Your task to perform on an android device: turn off translation in the chrome app Image 0: 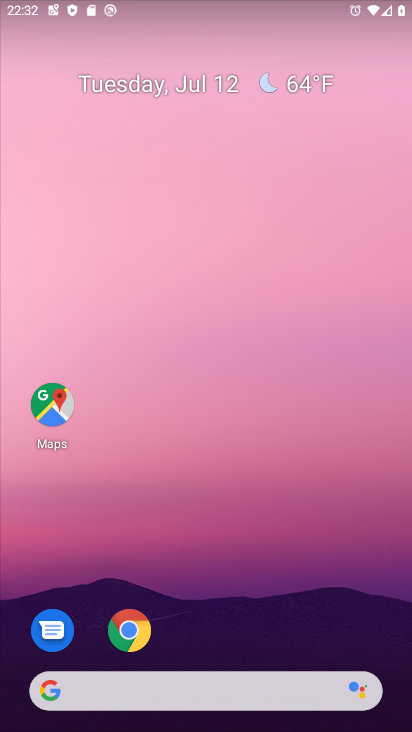
Step 0: drag from (221, 661) to (225, 47)
Your task to perform on an android device: turn off translation in the chrome app Image 1: 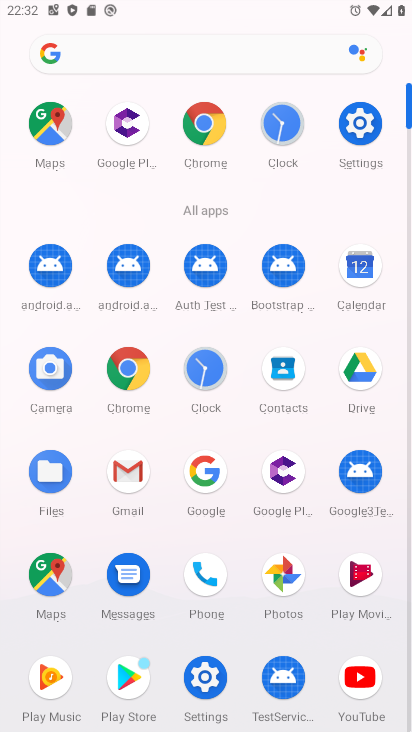
Step 1: click (125, 364)
Your task to perform on an android device: turn off translation in the chrome app Image 2: 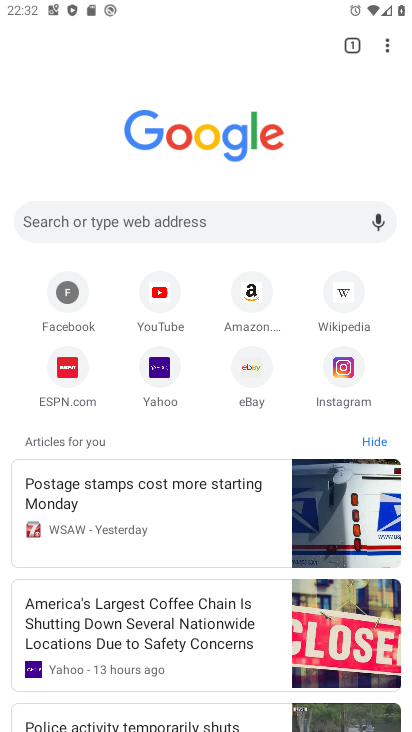
Step 2: click (389, 40)
Your task to perform on an android device: turn off translation in the chrome app Image 3: 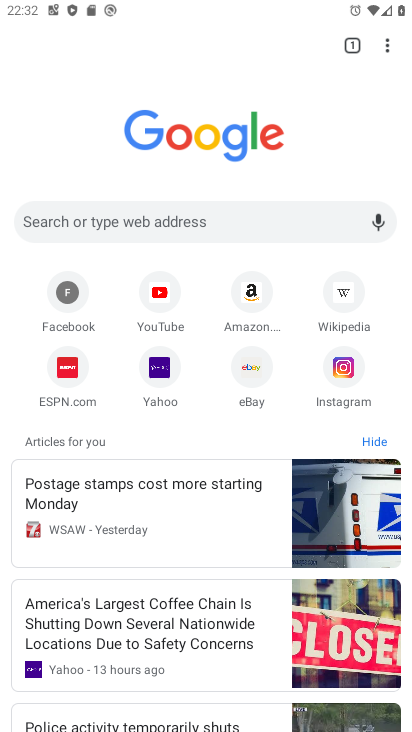
Step 3: drag from (386, 41) to (214, 377)
Your task to perform on an android device: turn off translation in the chrome app Image 4: 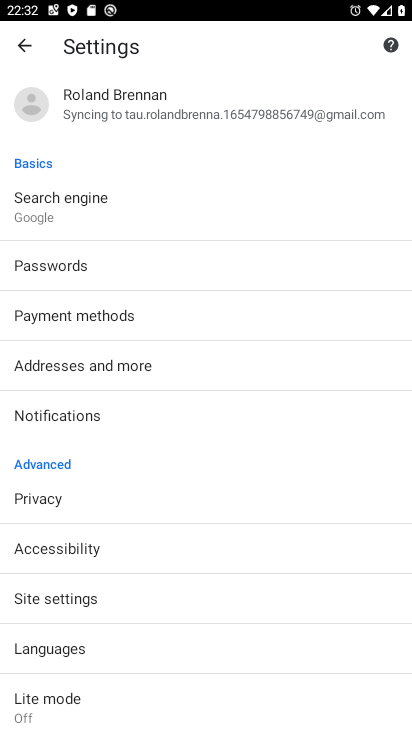
Step 4: drag from (159, 602) to (142, 176)
Your task to perform on an android device: turn off translation in the chrome app Image 5: 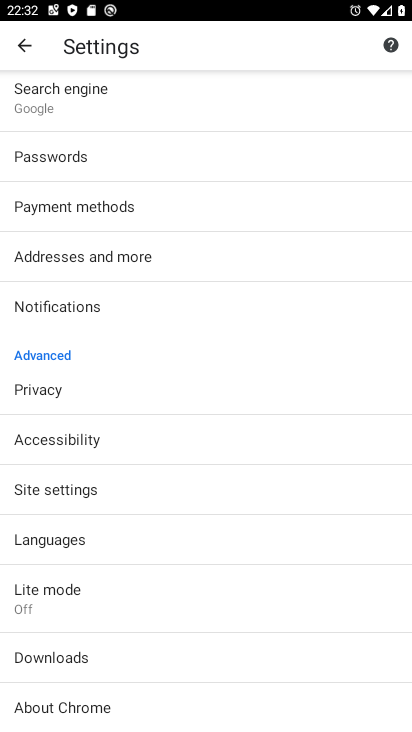
Step 5: click (108, 532)
Your task to perform on an android device: turn off translation in the chrome app Image 6: 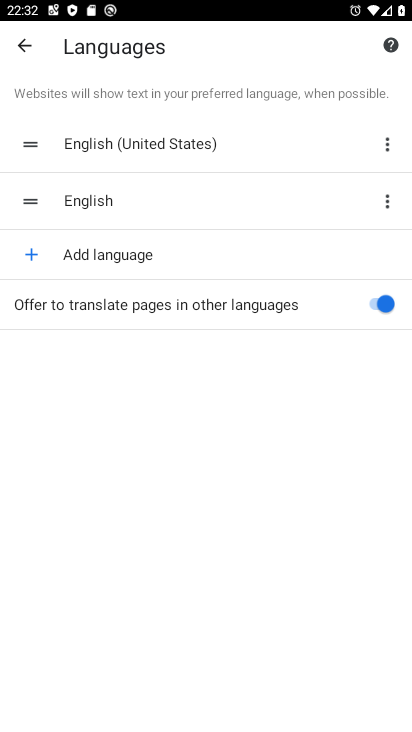
Step 6: click (389, 310)
Your task to perform on an android device: turn off translation in the chrome app Image 7: 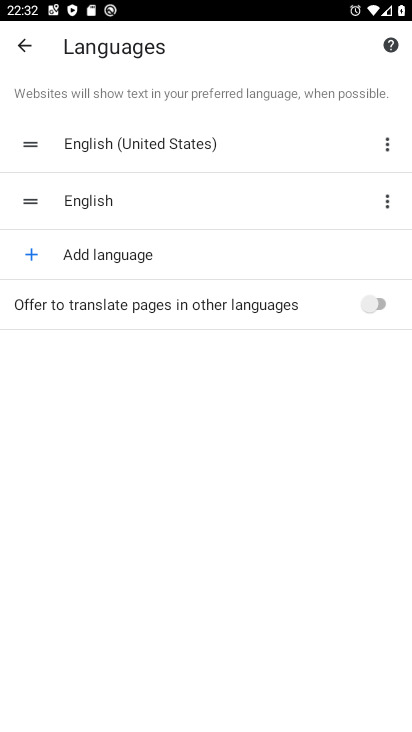
Step 7: task complete